Your task to perform on an android device: turn vacation reply on in the gmail app Image 0: 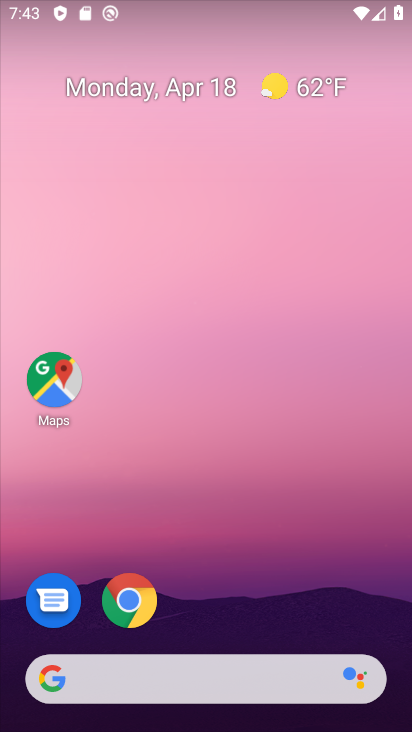
Step 0: drag from (214, 642) to (238, 77)
Your task to perform on an android device: turn vacation reply on in the gmail app Image 1: 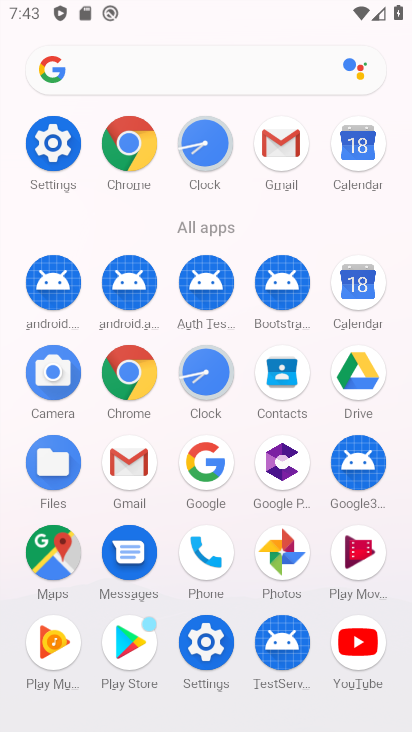
Step 1: click (129, 474)
Your task to perform on an android device: turn vacation reply on in the gmail app Image 2: 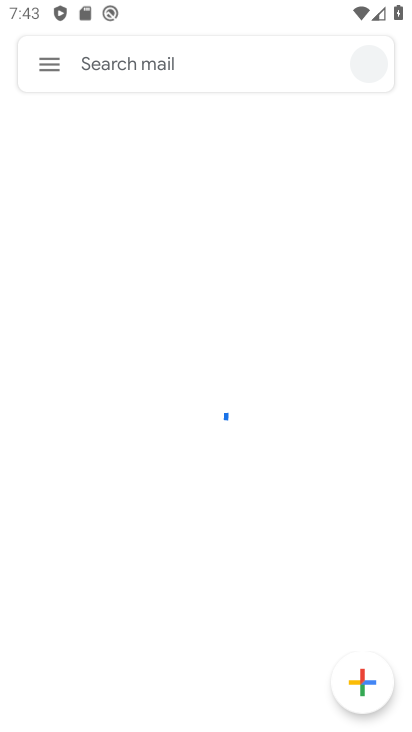
Step 2: click (56, 65)
Your task to perform on an android device: turn vacation reply on in the gmail app Image 3: 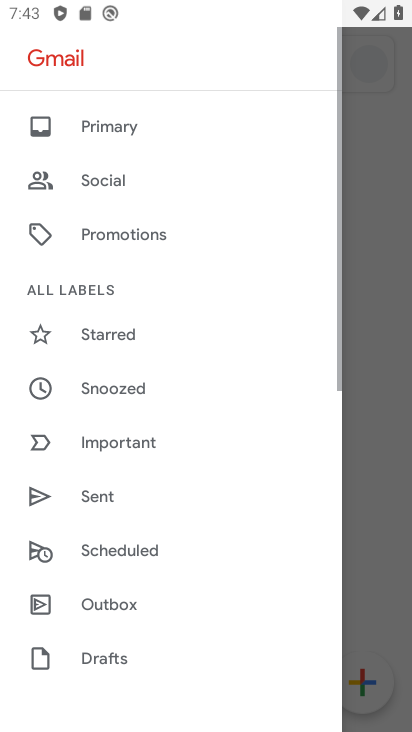
Step 3: drag from (68, 545) to (92, 23)
Your task to perform on an android device: turn vacation reply on in the gmail app Image 4: 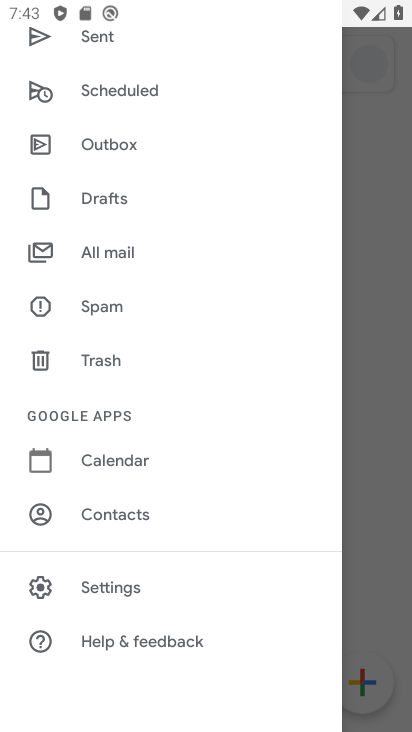
Step 4: click (115, 596)
Your task to perform on an android device: turn vacation reply on in the gmail app Image 5: 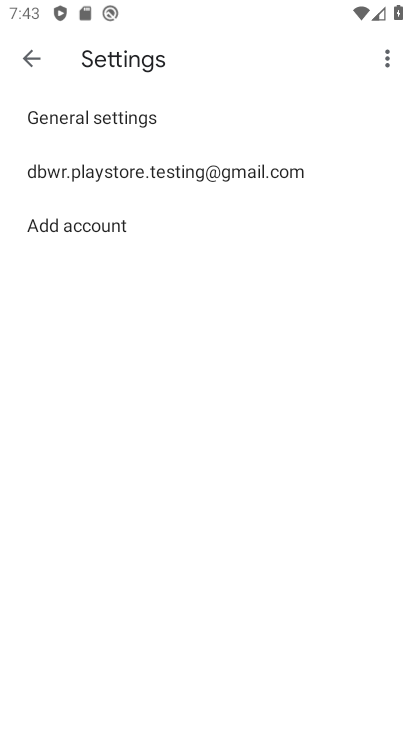
Step 5: click (103, 178)
Your task to perform on an android device: turn vacation reply on in the gmail app Image 6: 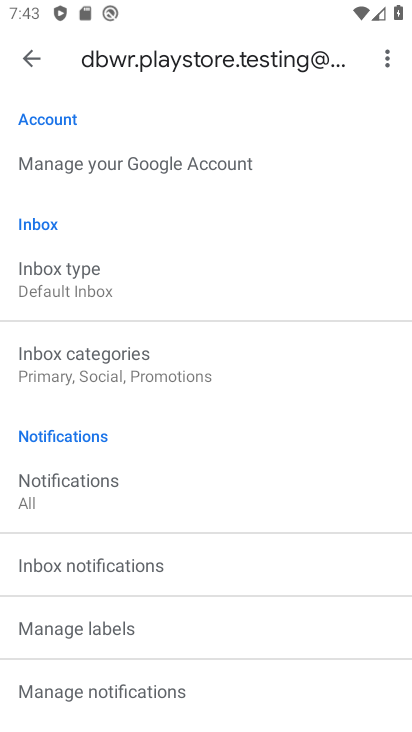
Step 6: drag from (174, 621) to (174, 189)
Your task to perform on an android device: turn vacation reply on in the gmail app Image 7: 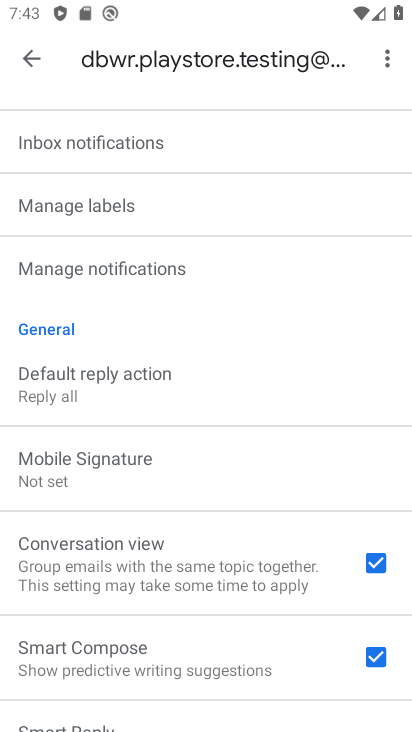
Step 7: drag from (199, 602) to (172, 171)
Your task to perform on an android device: turn vacation reply on in the gmail app Image 8: 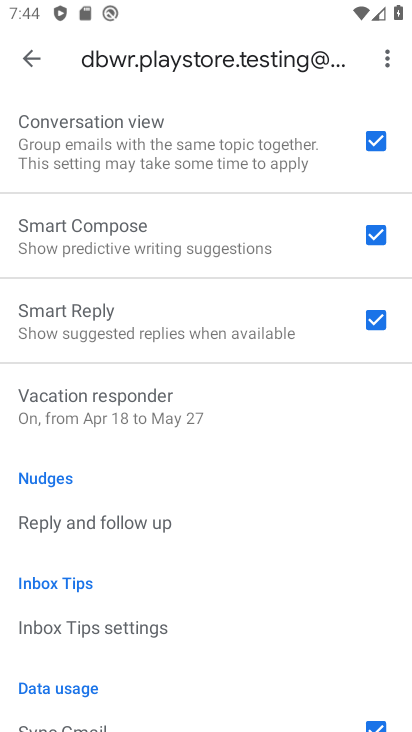
Step 8: click (103, 447)
Your task to perform on an android device: turn vacation reply on in the gmail app Image 9: 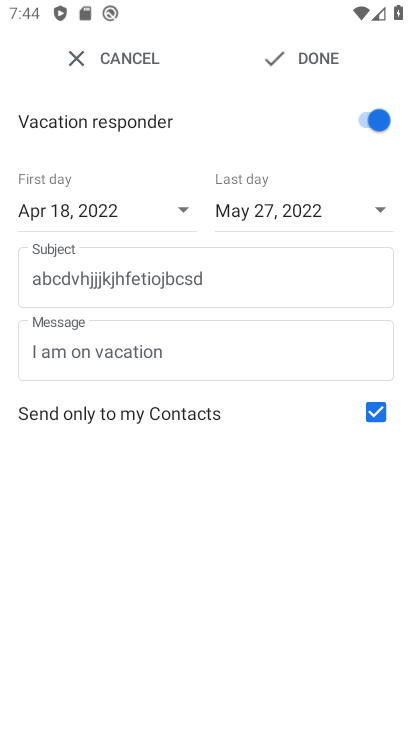
Step 9: click (283, 56)
Your task to perform on an android device: turn vacation reply on in the gmail app Image 10: 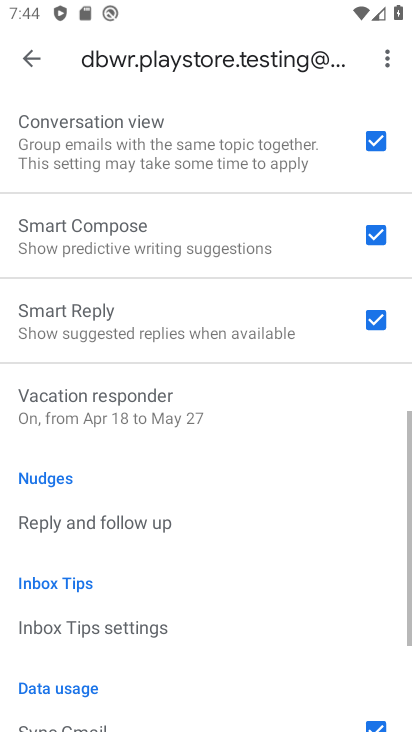
Step 10: task complete